Your task to perform on an android device: open chrome and create a bookmark for the current page Image 0: 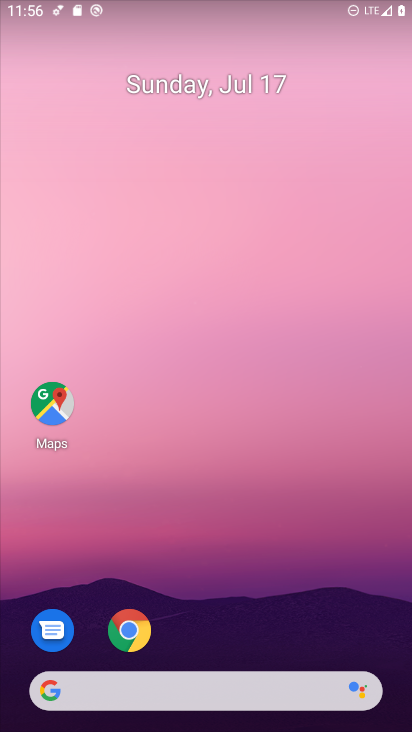
Step 0: click (129, 629)
Your task to perform on an android device: open chrome and create a bookmark for the current page Image 1: 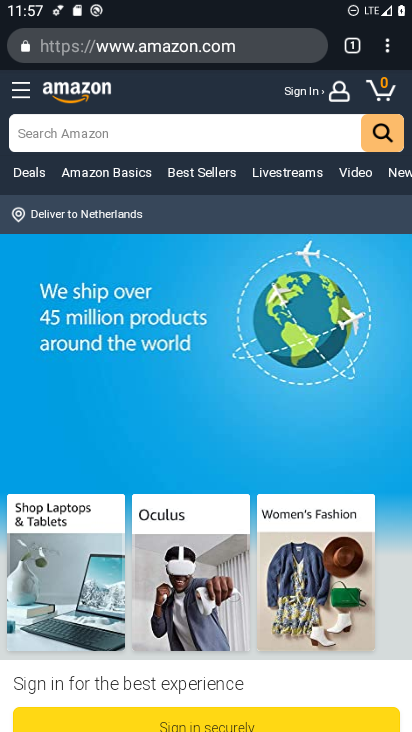
Step 1: click (385, 39)
Your task to perform on an android device: open chrome and create a bookmark for the current page Image 2: 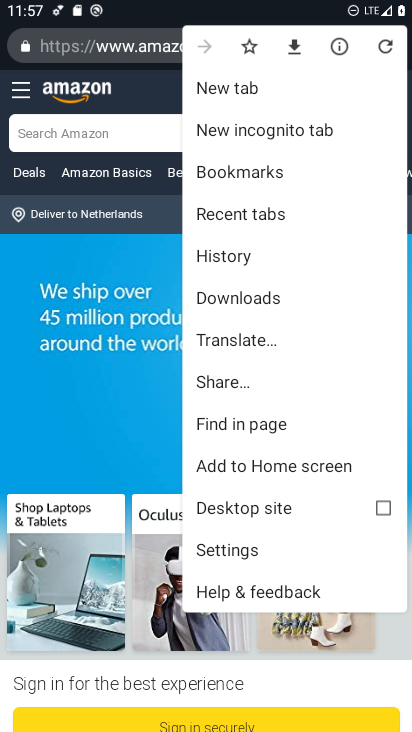
Step 2: click (249, 43)
Your task to perform on an android device: open chrome and create a bookmark for the current page Image 3: 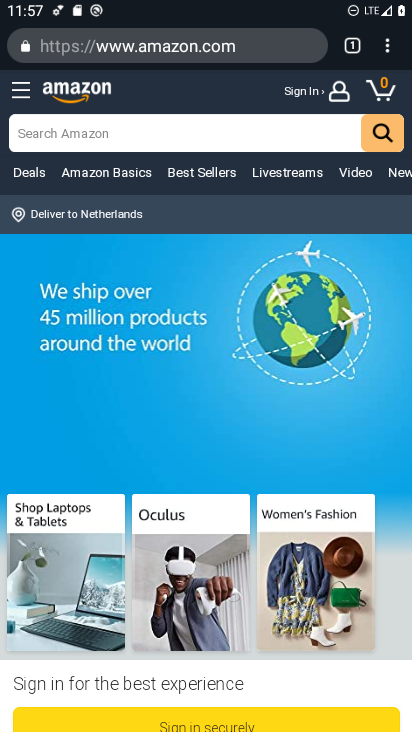
Step 3: task complete